Your task to perform on an android device: Clear the shopping cart on ebay. Search for "razer blade" on ebay, select the first entry, and add it to the cart. Image 0: 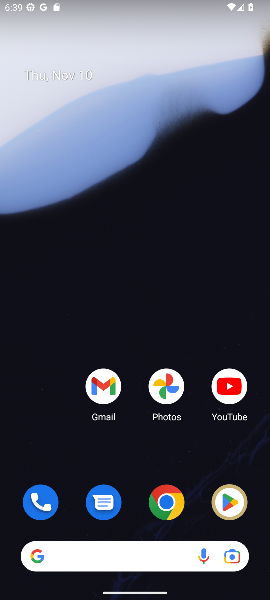
Step 0: drag from (132, 513) to (137, 123)
Your task to perform on an android device: Clear the shopping cart on ebay. Search for "razer blade" on ebay, select the first entry, and add it to the cart. Image 1: 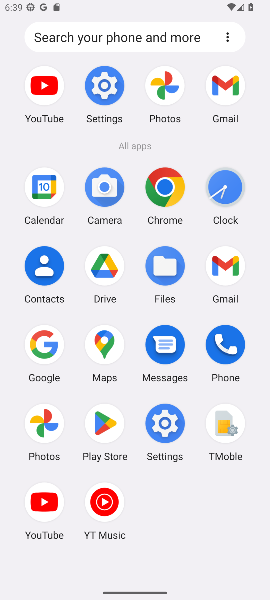
Step 1: click (50, 341)
Your task to perform on an android device: Clear the shopping cart on ebay. Search for "razer blade" on ebay, select the first entry, and add it to the cart. Image 2: 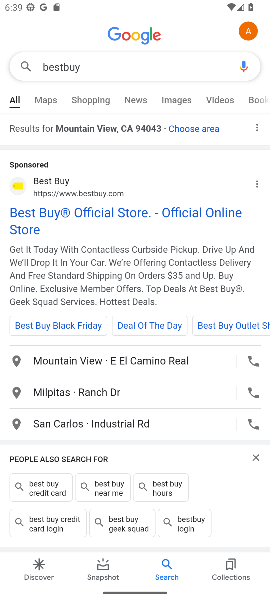
Step 2: click (154, 65)
Your task to perform on an android device: Clear the shopping cart on ebay. Search for "razer blade" on ebay, select the first entry, and add it to the cart. Image 3: 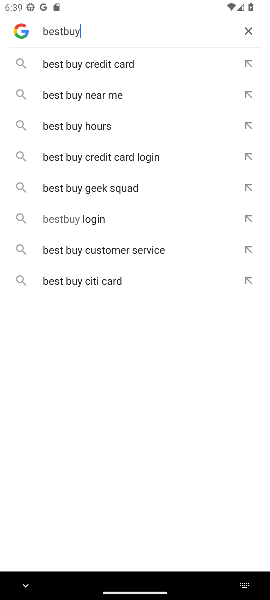
Step 3: click (249, 30)
Your task to perform on an android device: Clear the shopping cart on ebay. Search for "razer blade" on ebay, select the first entry, and add it to the cart. Image 4: 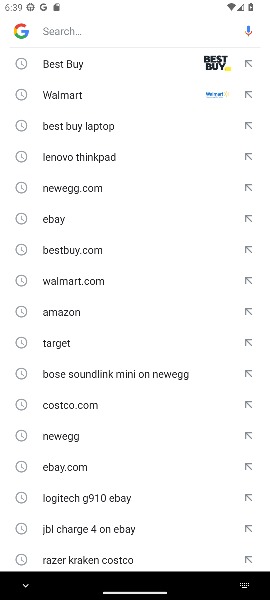
Step 4: type "ebay"
Your task to perform on an android device: Clear the shopping cart on ebay. Search for "razer blade" on ebay, select the first entry, and add it to the cart. Image 5: 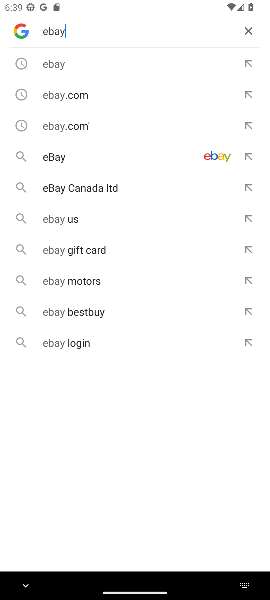
Step 5: click (151, 149)
Your task to perform on an android device: Clear the shopping cart on ebay. Search for "razer blade" on ebay, select the first entry, and add it to the cart. Image 6: 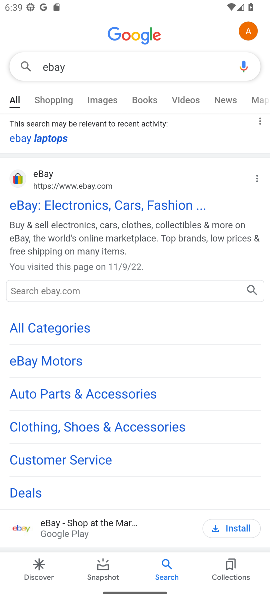
Step 6: click (42, 187)
Your task to perform on an android device: Clear the shopping cart on ebay. Search for "razer blade" on ebay, select the first entry, and add it to the cart. Image 7: 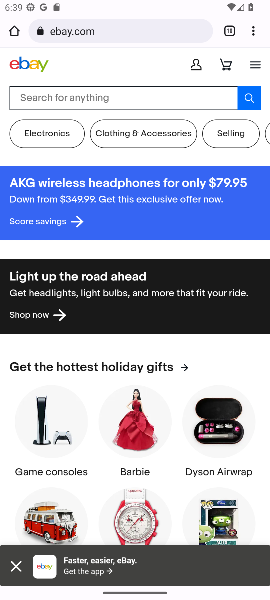
Step 7: click (228, 63)
Your task to perform on an android device: Clear the shopping cart on ebay. Search for "razer blade" on ebay, select the first entry, and add it to the cart. Image 8: 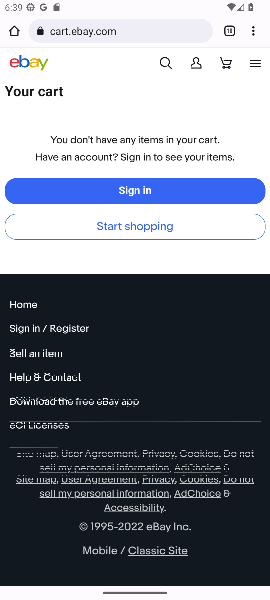
Step 8: click (162, 63)
Your task to perform on an android device: Clear the shopping cart on ebay. Search for "razer blade" on ebay, select the first entry, and add it to the cart. Image 9: 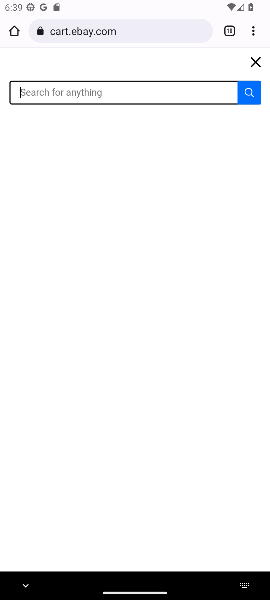
Step 9: type "razer blade"
Your task to perform on an android device: Clear the shopping cart on ebay. Search for "razer blade" on ebay, select the first entry, and add it to the cart. Image 10: 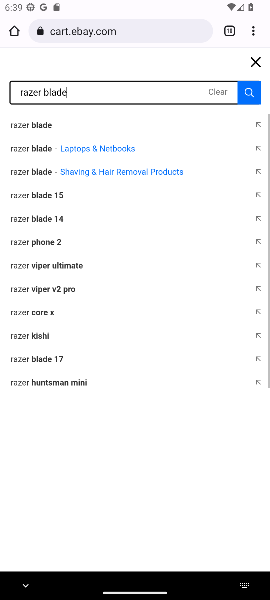
Step 10: click (35, 130)
Your task to perform on an android device: Clear the shopping cart on ebay. Search for "razer blade" on ebay, select the first entry, and add it to the cart. Image 11: 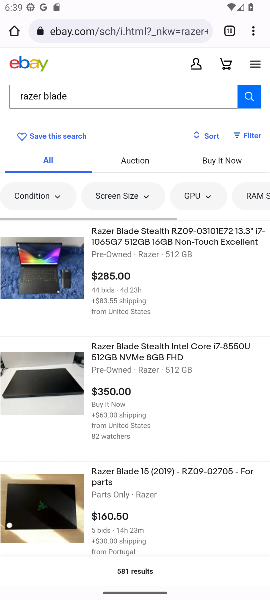
Step 11: click (111, 239)
Your task to perform on an android device: Clear the shopping cart on ebay. Search for "razer blade" on ebay, select the first entry, and add it to the cart. Image 12: 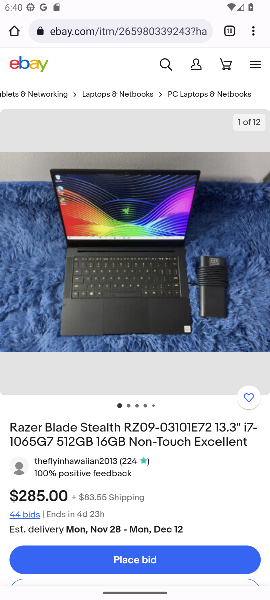
Step 12: drag from (129, 484) to (129, 354)
Your task to perform on an android device: Clear the shopping cart on ebay. Search for "razer blade" on ebay, select the first entry, and add it to the cart. Image 13: 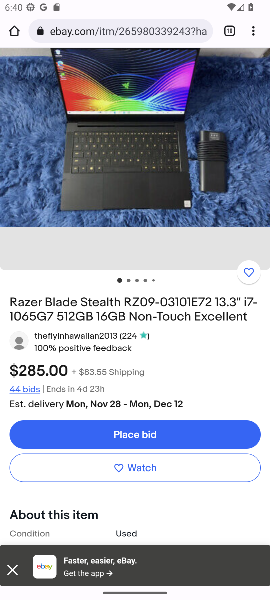
Step 13: click (137, 434)
Your task to perform on an android device: Clear the shopping cart on ebay. Search for "razer blade" on ebay, select the first entry, and add it to the cart. Image 14: 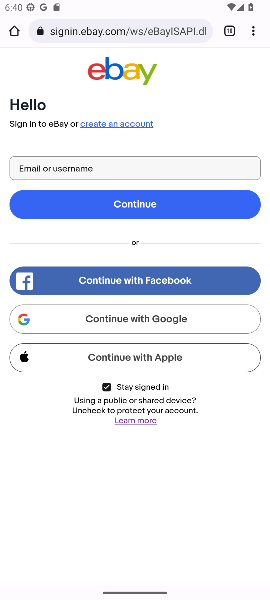
Step 14: task complete